Your task to perform on an android device: toggle show notifications on the lock screen Image 0: 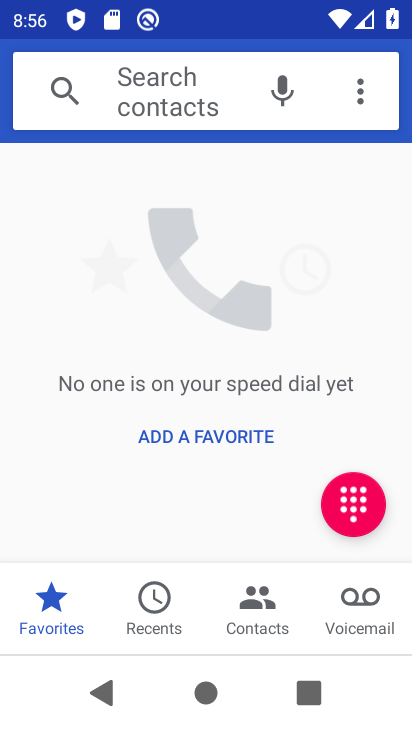
Step 0: press home button
Your task to perform on an android device: toggle show notifications on the lock screen Image 1: 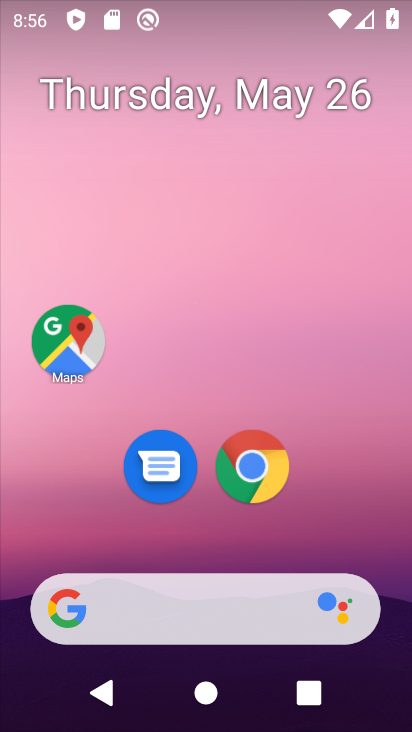
Step 1: drag from (328, 516) to (180, 95)
Your task to perform on an android device: toggle show notifications on the lock screen Image 2: 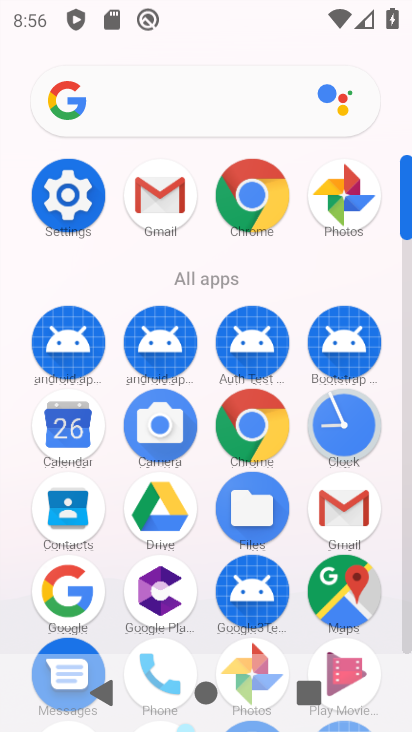
Step 2: click (67, 200)
Your task to perform on an android device: toggle show notifications on the lock screen Image 3: 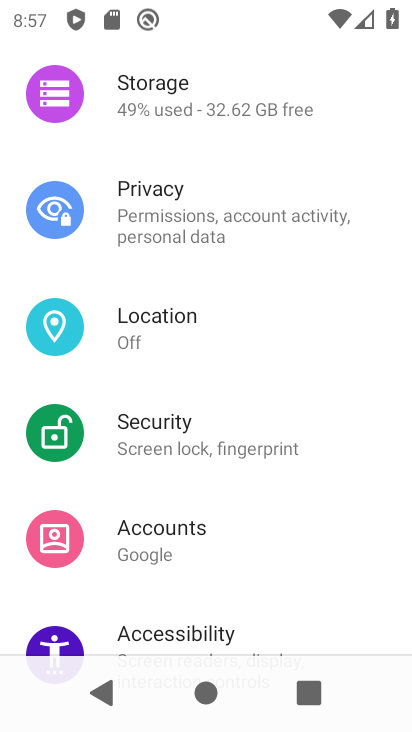
Step 3: drag from (237, 167) to (297, 724)
Your task to perform on an android device: toggle show notifications on the lock screen Image 4: 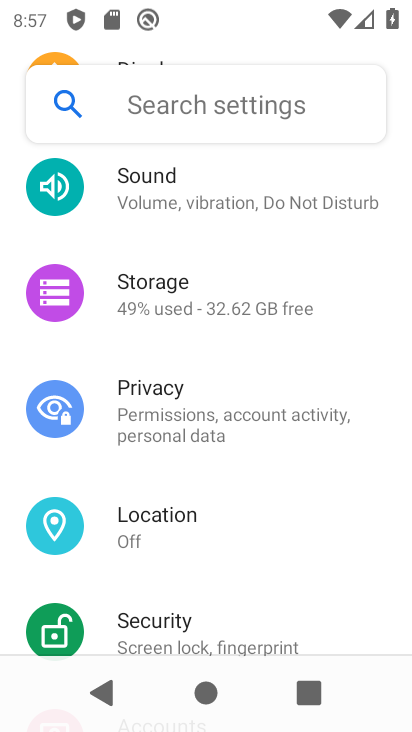
Step 4: drag from (239, 250) to (168, 674)
Your task to perform on an android device: toggle show notifications on the lock screen Image 5: 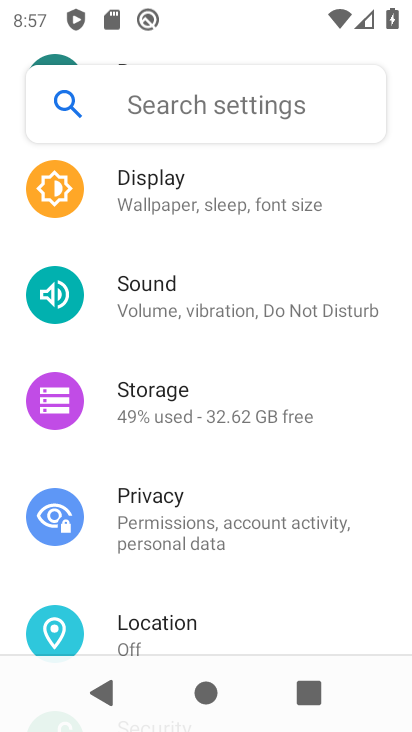
Step 5: drag from (179, 221) to (300, 680)
Your task to perform on an android device: toggle show notifications on the lock screen Image 6: 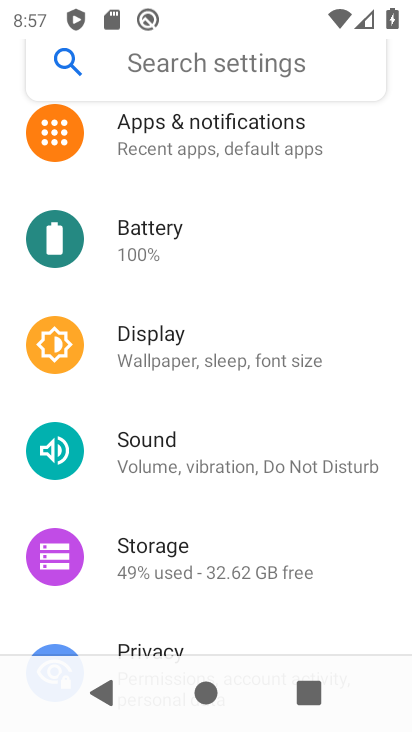
Step 6: click (204, 129)
Your task to perform on an android device: toggle show notifications on the lock screen Image 7: 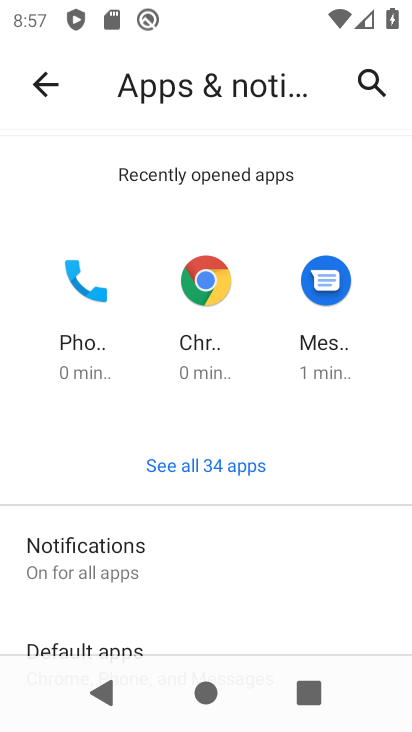
Step 7: drag from (259, 575) to (185, 285)
Your task to perform on an android device: toggle show notifications on the lock screen Image 8: 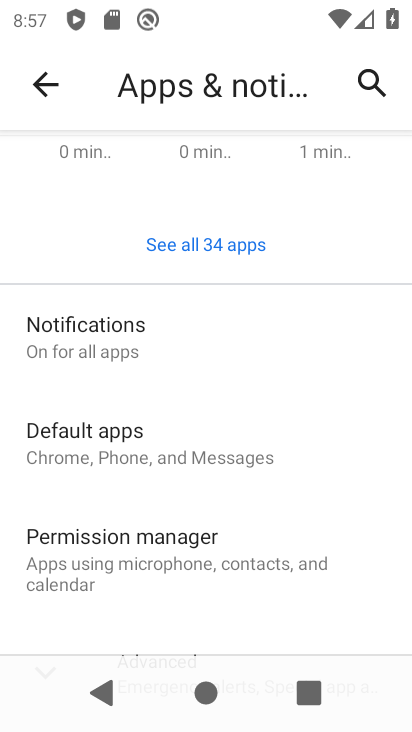
Step 8: click (95, 323)
Your task to perform on an android device: toggle show notifications on the lock screen Image 9: 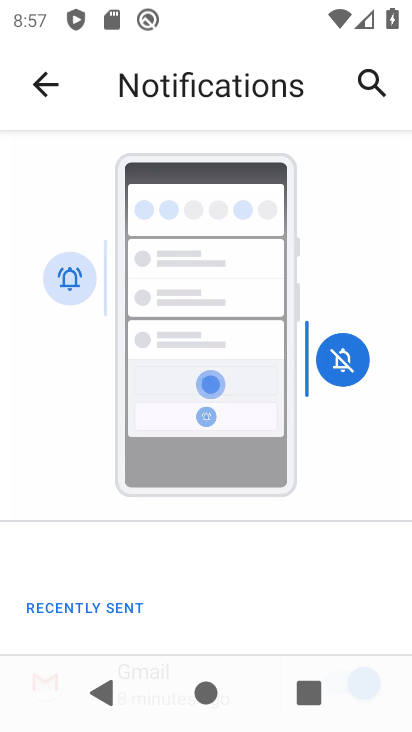
Step 9: drag from (202, 555) to (74, 253)
Your task to perform on an android device: toggle show notifications on the lock screen Image 10: 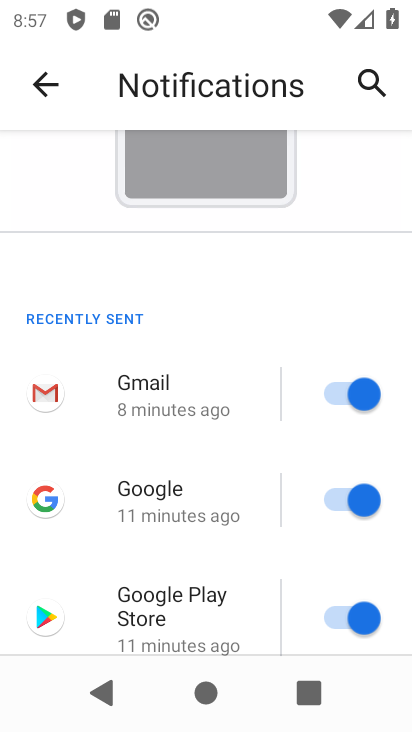
Step 10: drag from (193, 540) to (117, 255)
Your task to perform on an android device: toggle show notifications on the lock screen Image 11: 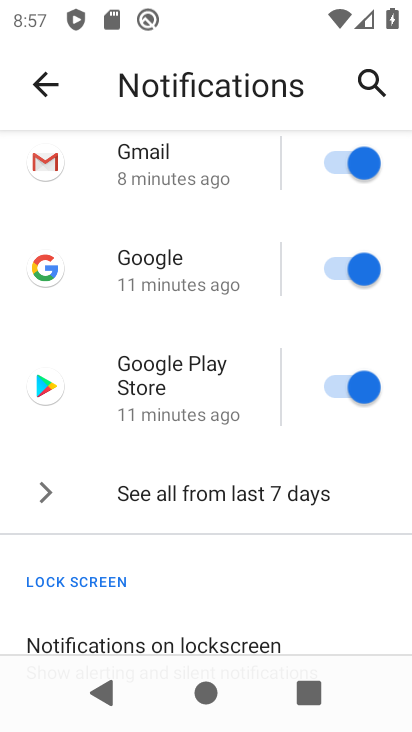
Step 11: drag from (201, 594) to (167, 333)
Your task to perform on an android device: toggle show notifications on the lock screen Image 12: 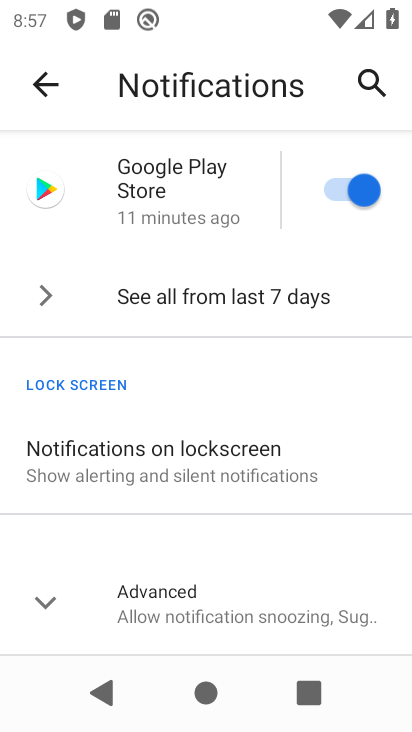
Step 12: click (144, 442)
Your task to perform on an android device: toggle show notifications on the lock screen Image 13: 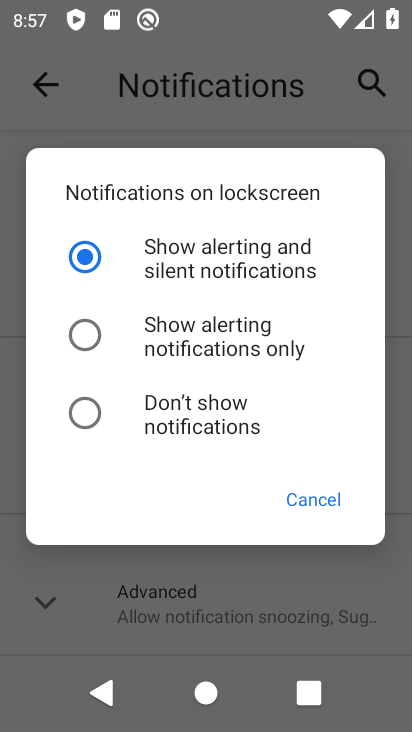
Step 13: click (76, 397)
Your task to perform on an android device: toggle show notifications on the lock screen Image 14: 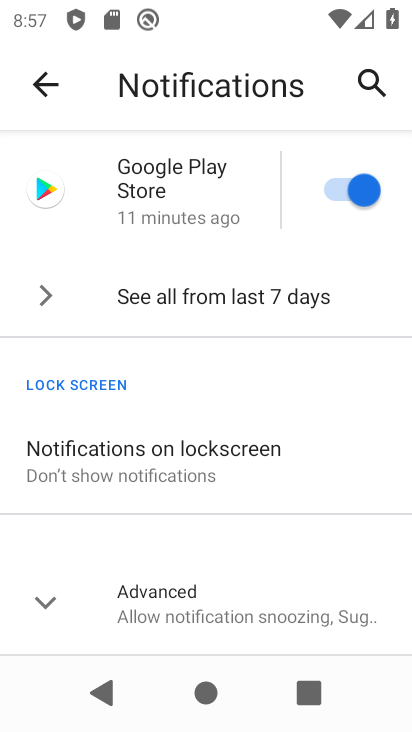
Step 14: task complete